Your task to perform on an android device: Open Yahoo.com Image 0: 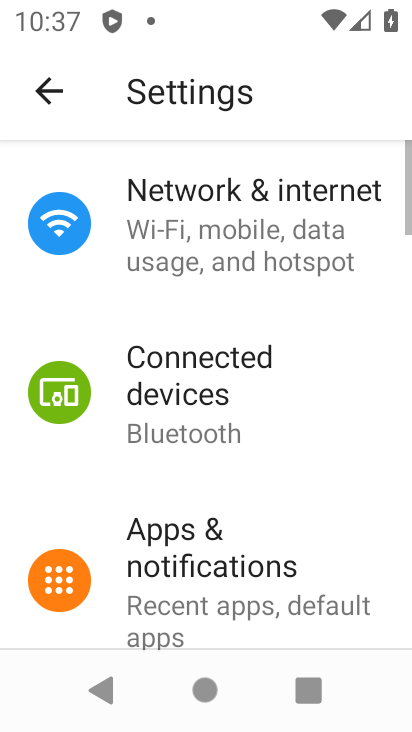
Step 0: press home button
Your task to perform on an android device: Open Yahoo.com Image 1: 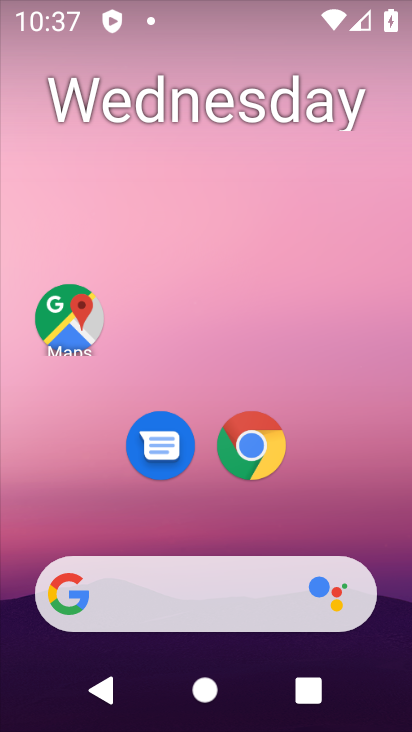
Step 1: drag from (339, 525) to (337, 70)
Your task to perform on an android device: Open Yahoo.com Image 2: 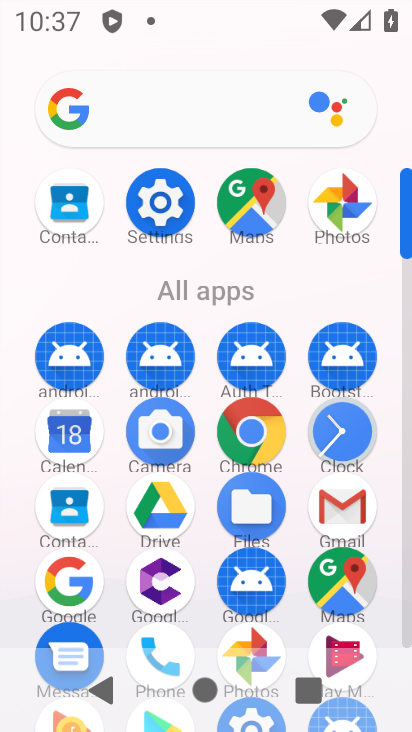
Step 2: click (78, 581)
Your task to perform on an android device: Open Yahoo.com Image 3: 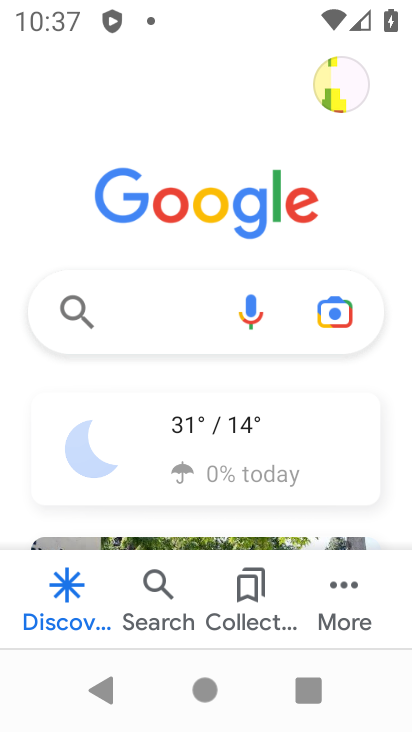
Step 3: click (175, 320)
Your task to perform on an android device: Open Yahoo.com Image 4: 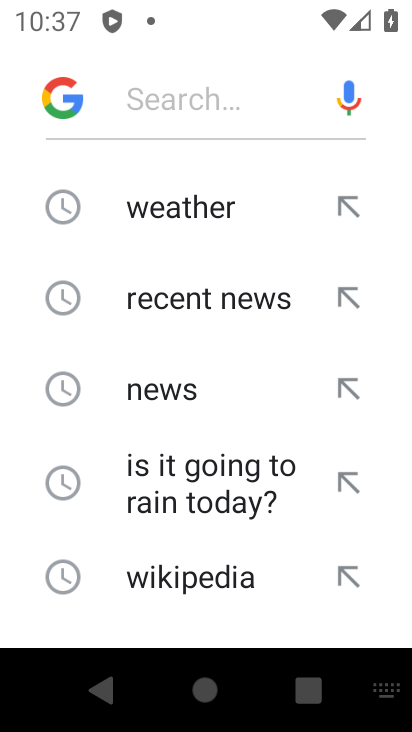
Step 4: type "yahoo.com"
Your task to perform on an android device: Open Yahoo.com Image 5: 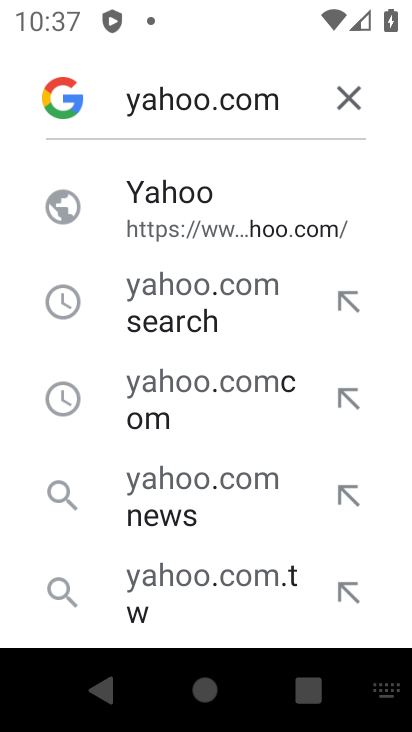
Step 5: click (187, 318)
Your task to perform on an android device: Open Yahoo.com Image 6: 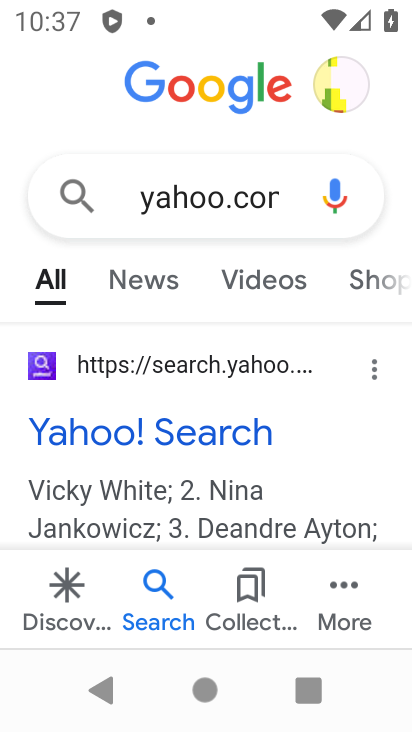
Step 6: click (228, 374)
Your task to perform on an android device: Open Yahoo.com Image 7: 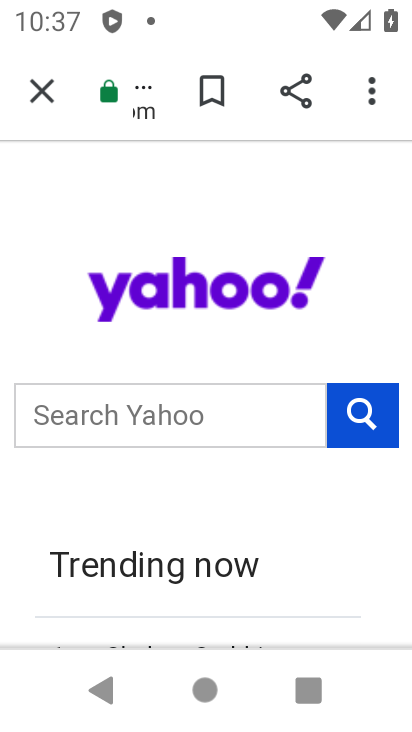
Step 7: task complete